Your task to perform on an android device: check data usage Image 0: 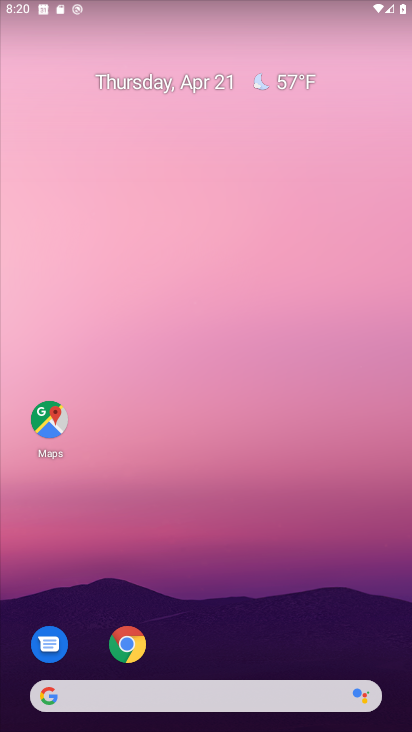
Step 0: drag from (220, 628) to (197, 69)
Your task to perform on an android device: check data usage Image 1: 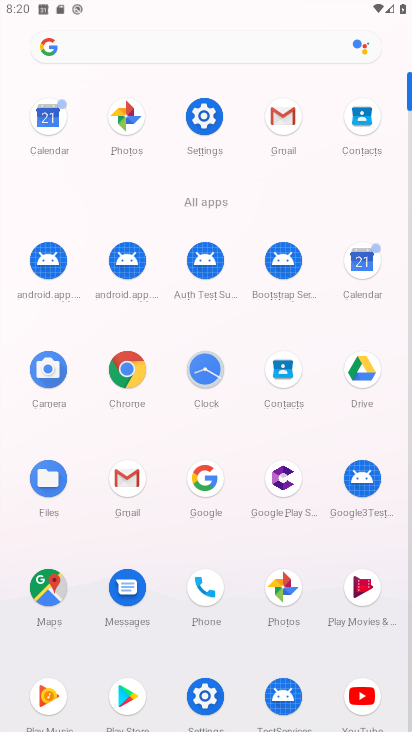
Step 1: click (212, 119)
Your task to perform on an android device: check data usage Image 2: 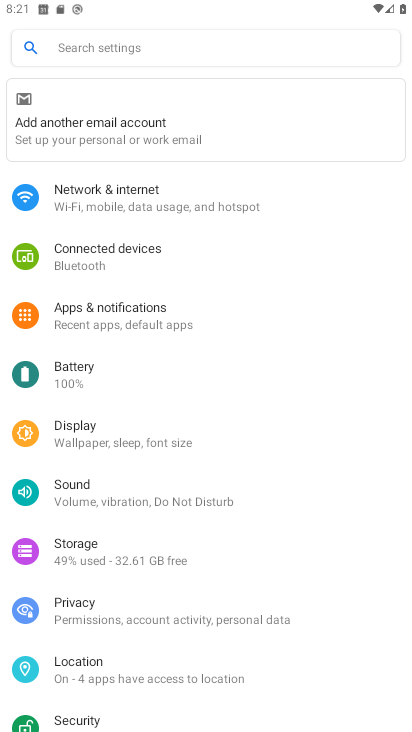
Step 2: click (146, 210)
Your task to perform on an android device: check data usage Image 3: 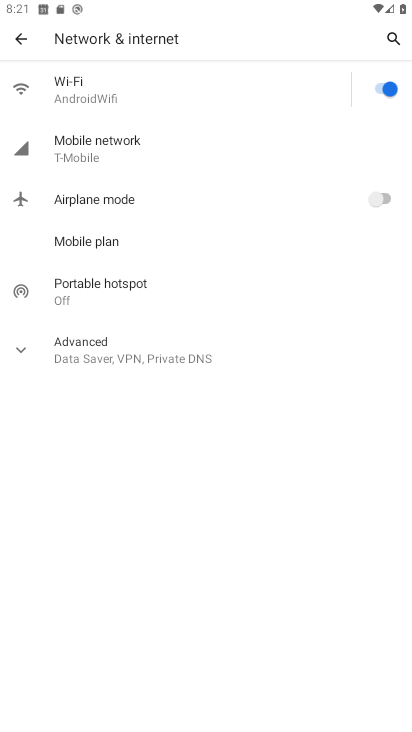
Step 3: click (132, 153)
Your task to perform on an android device: check data usage Image 4: 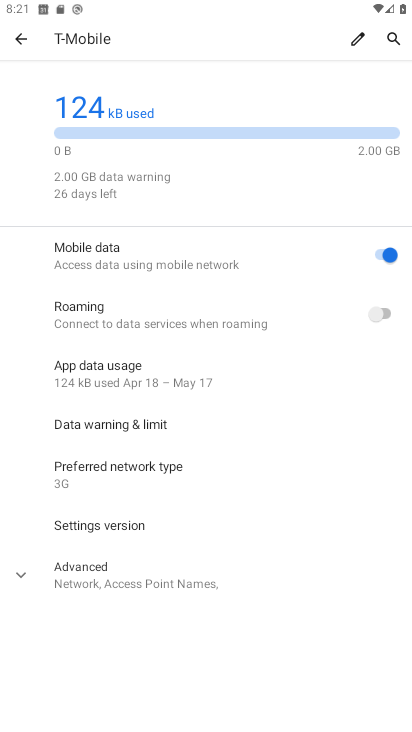
Step 4: task complete